Your task to perform on an android device: Go to eBay Image 0: 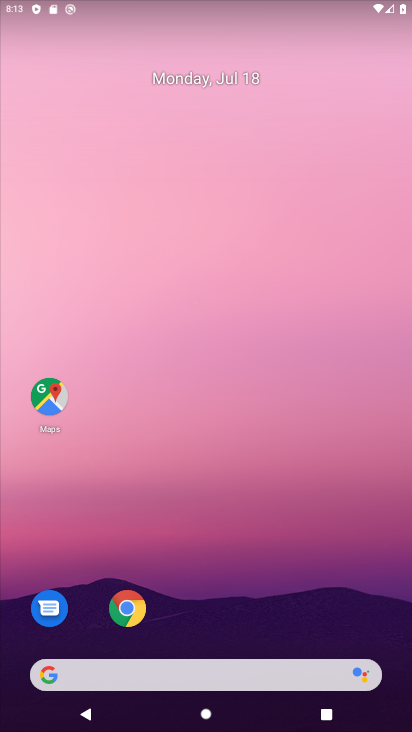
Step 0: drag from (228, 661) to (214, 247)
Your task to perform on an android device: Go to eBay Image 1: 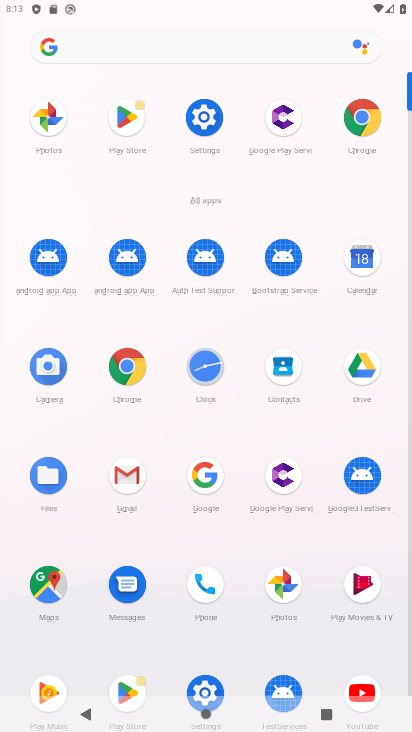
Step 1: click (355, 120)
Your task to perform on an android device: Go to eBay Image 2: 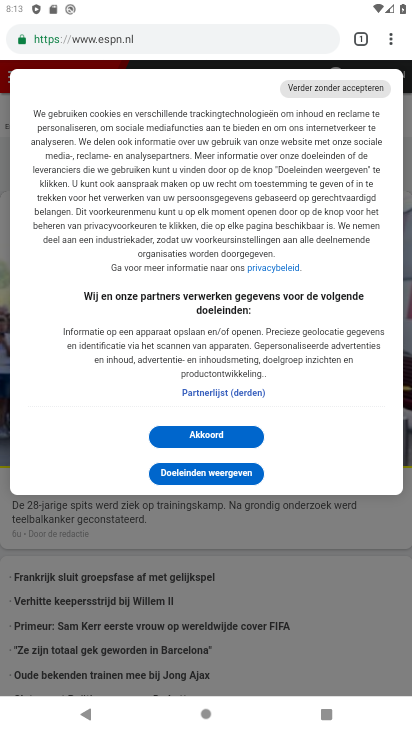
Step 2: click (390, 44)
Your task to perform on an android device: Go to eBay Image 3: 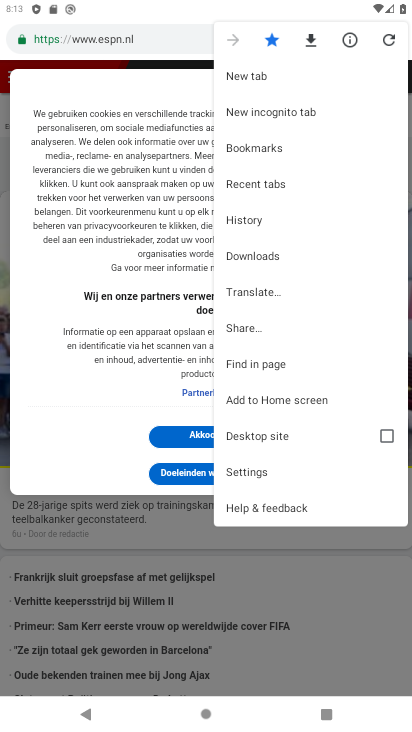
Step 3: click (250, 79)
Your task to perform on an android device: Go to eBay Image 4: 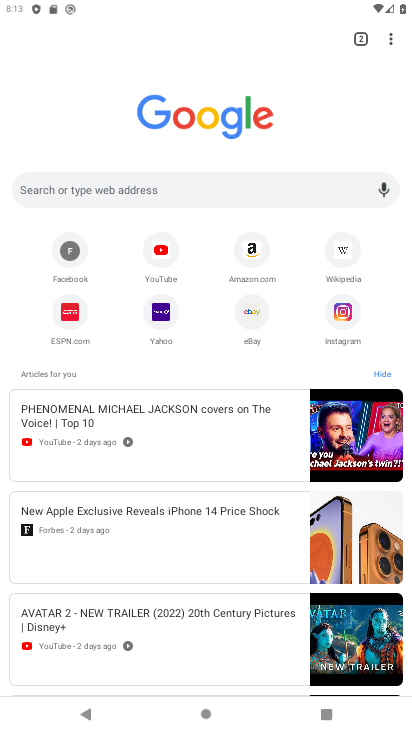
Step 4: click (250, 311)
Your task to perform on an android device: Go to eBay Image 5: 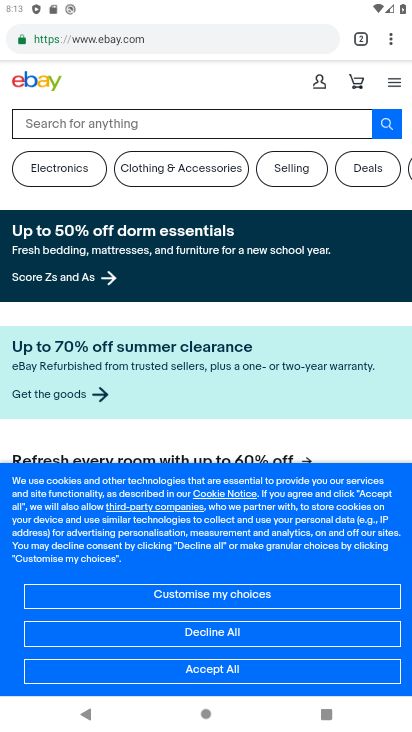
Step 5: task complete